Your task to perform on an android device: turn off wifi Image 0: 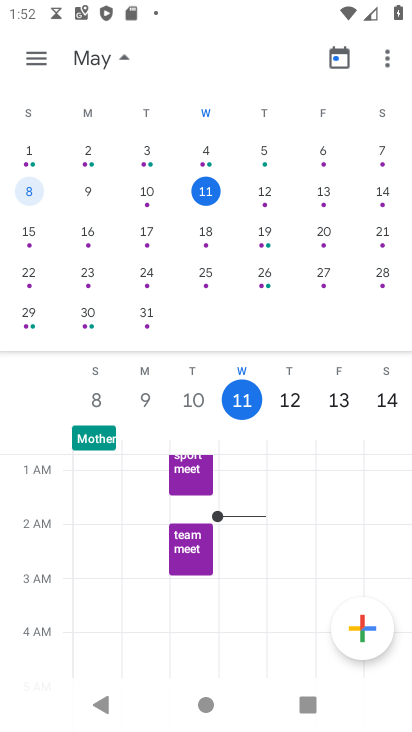
Step 0: press home button
Your task to perform on an android device: turn off wifi Image 1: 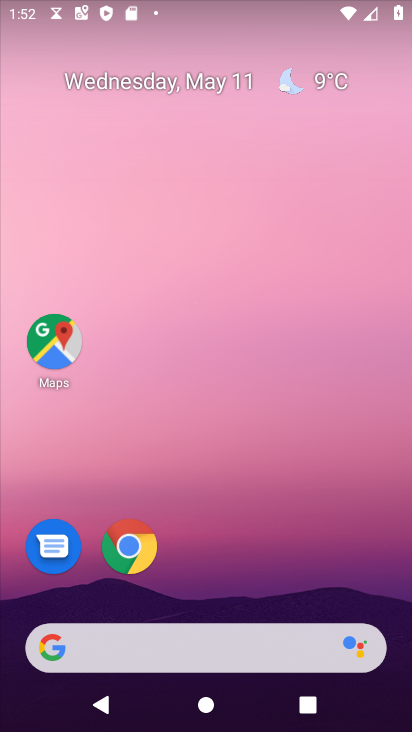
Step 1: drag from (293, 609) to (368, 76)
Your task to perform on an android device: turn off wifi Image 2: 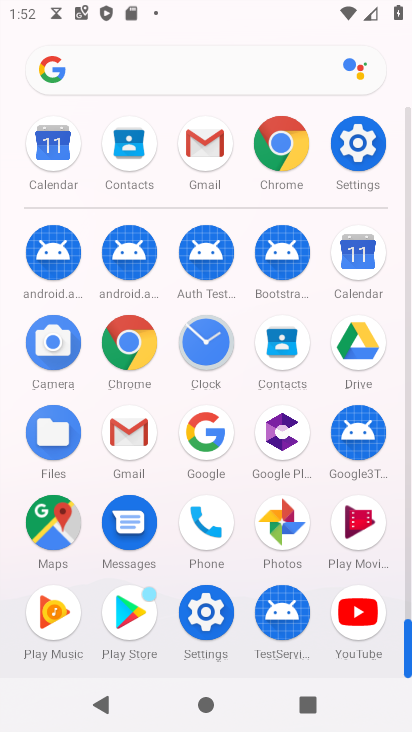
Step 2: click (350, 159)
Your task to perform on an android device: turn off wifi Image 3: 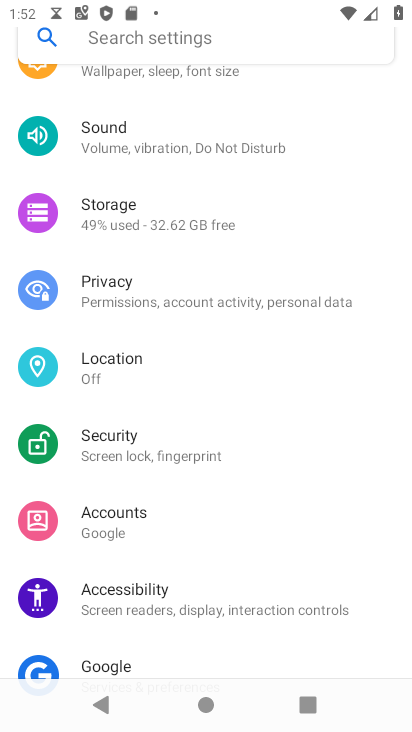
Step 3: click (350, 159)
Your task to perform on an android device: turn off wifi Image 4: 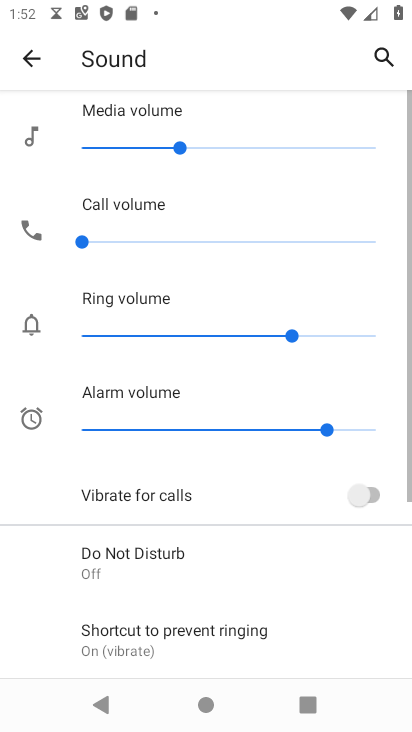
Step 4: click (355, 133)
Your task to perform on an android device: turn off wifi Image 5: 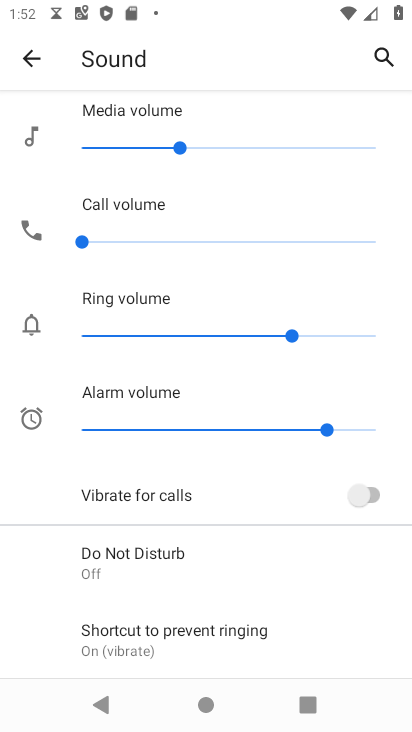
Step 5: press back button
Your task to perform on an android device: turn off wifi Image 6: 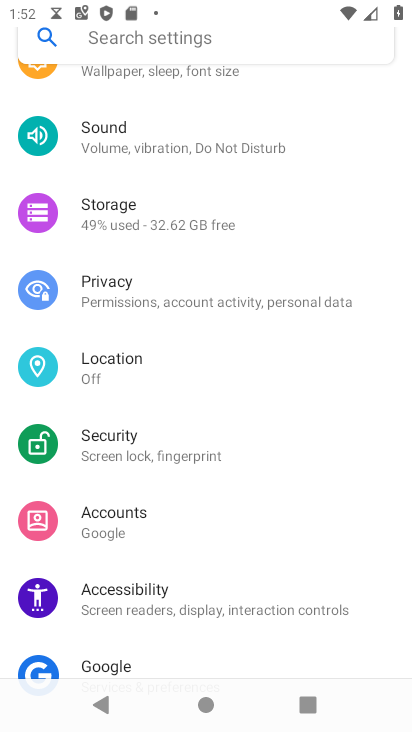
Step 6: drag from (216, 104) to (277, 542)
Your task to perform on an android device: turn off wifi Image 7: 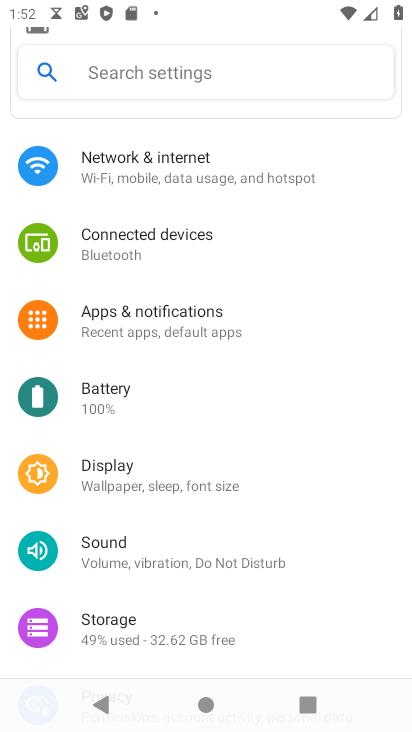
Step 7: click (264, 185)
Your task to perform on an android device: turn off wifi Image 8: 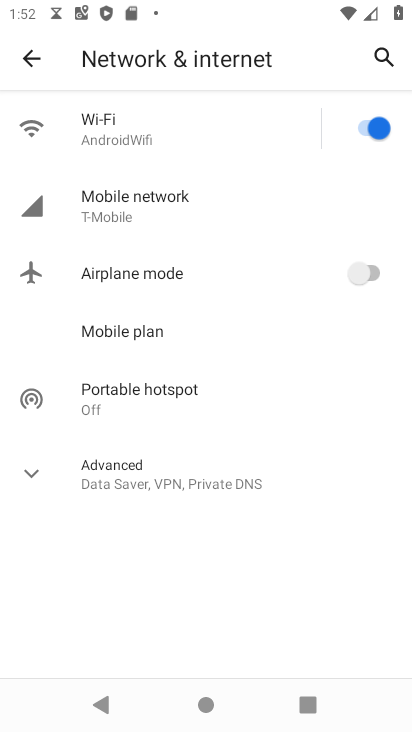
Step 8: click (363, 129)
Your task to perform on an android device: turn off wifi Image 9: 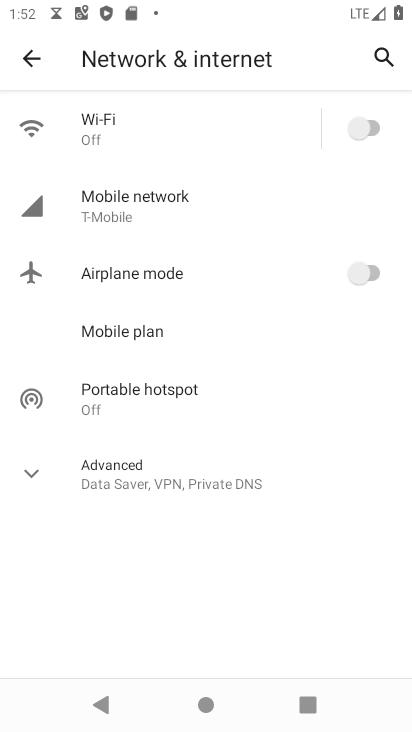
Step 9: task complete